Your task to perform on an android device: Go to notification settings Image 0: 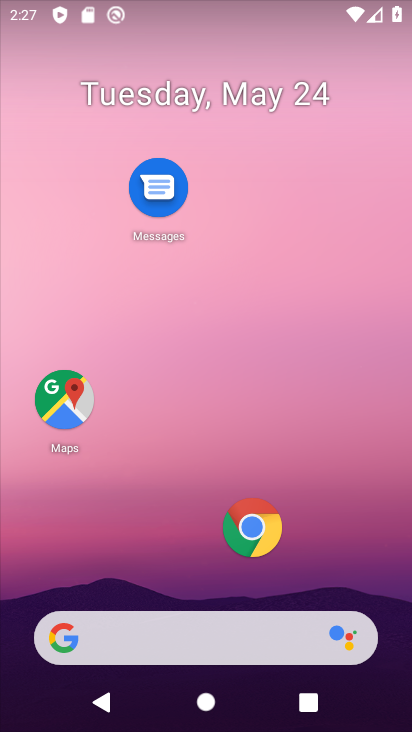
Step 0: click (67, 400)
Your task to perform on an android device: Go to notification settings Image 1: 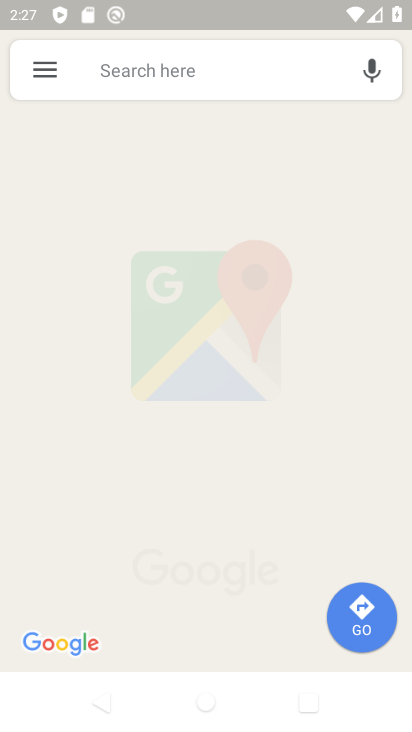
Step 1: press home button
Your task to perform on an android device: Go to notification settings Image 2: 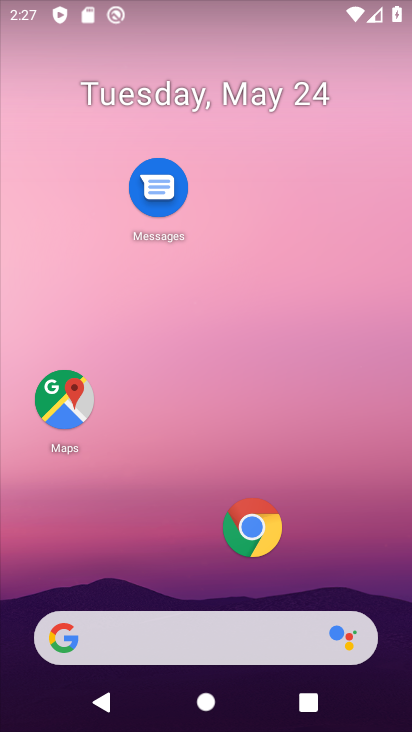
Step 2: drag from (170, 580) to (173, 149)
Your task to perform on an android device: Go to notification settings Image 3: 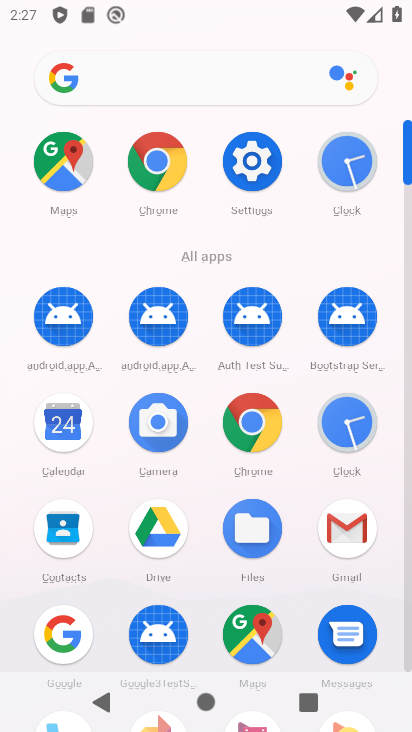
Step 3: click (255, 160)
Your task to perform on an android device: Go to notification settings Image 4: 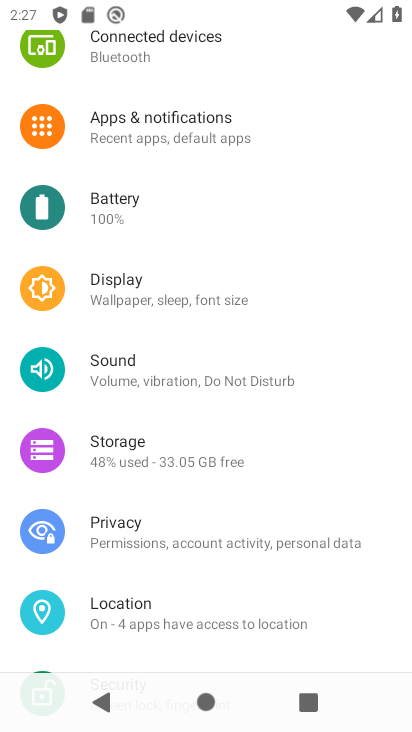
Step 4: click (210, 132)
Your task to perform on an android device: Go to notification settings Image 5: 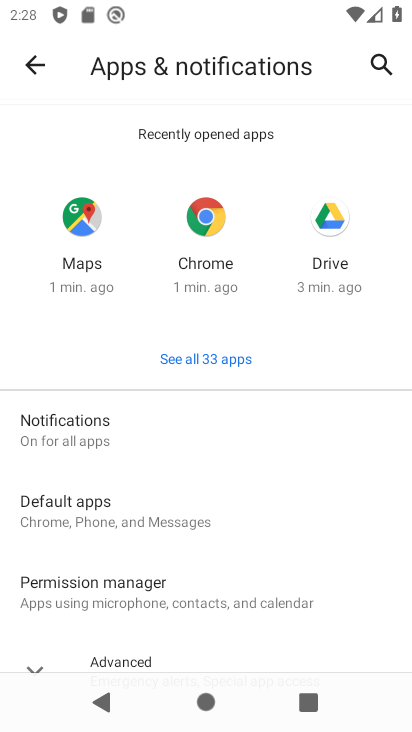
Step 5: task complete